Your task to perform on an android device: Search for pizza restaurants on Maps Image 0: 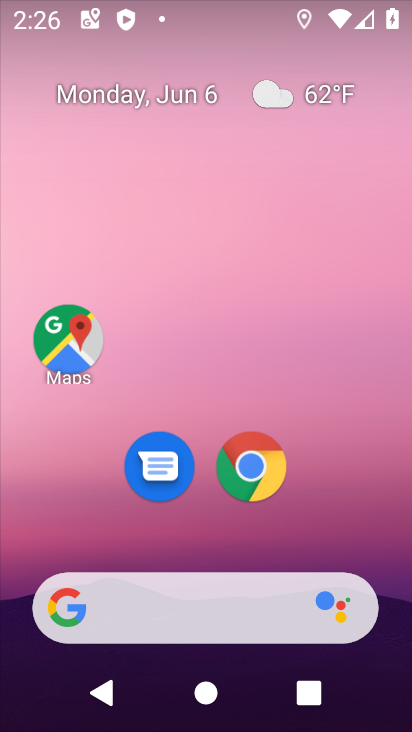
Step 0: drag from (203, 653) to (144, 253)
Your task to perform on an android device: Search for pizza restaurants on Maps Image 1: 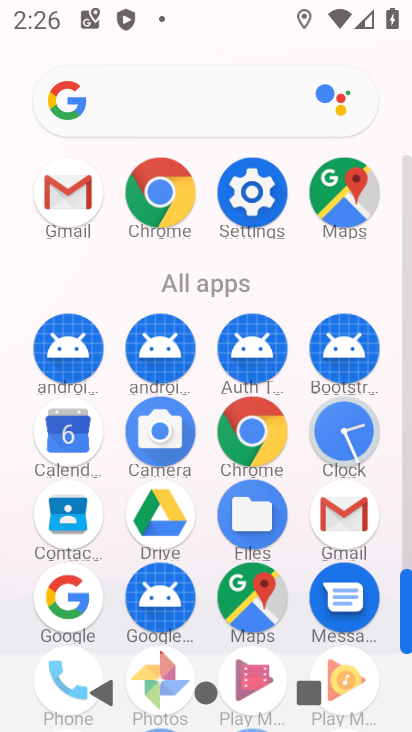
Step 1: click (252, 564)
Your task to perform on an android device: Search for pizza restaurants on Maps Image 2: 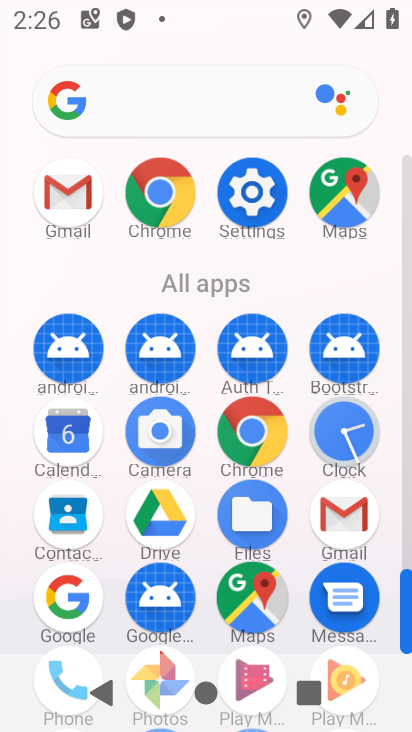
Step 2: click (251, 578)
Your task to perform on an android device: Search for pizza restaurants on Maps Image 3: 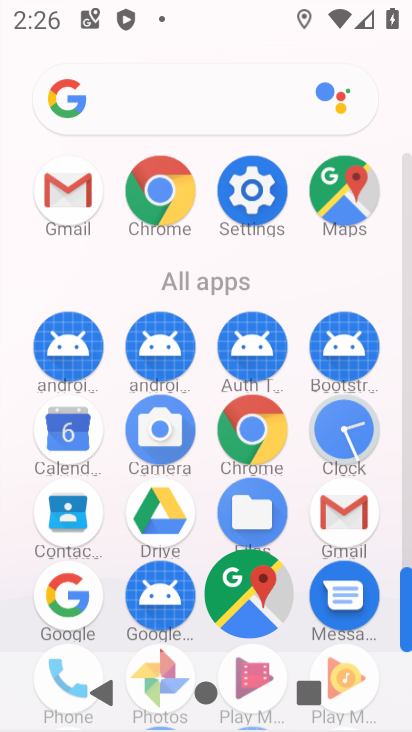
Step 3: click (251, 584)
Your task to perform on an android device: Search for pizza restaurants on Maps Image 4: 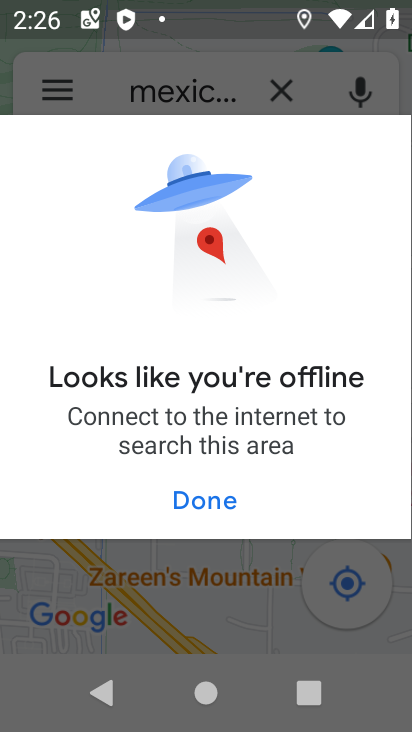
Step 4: task complete